Your task to perform on an android device: turn off javascript in the chrome app Image 0: 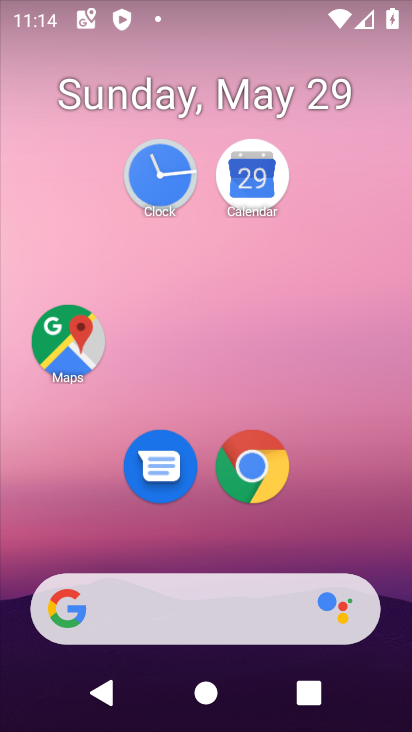
Step 0: click (263, 473)
Your task to perform on an android device: turn off javascript in the chrome app Image 1: 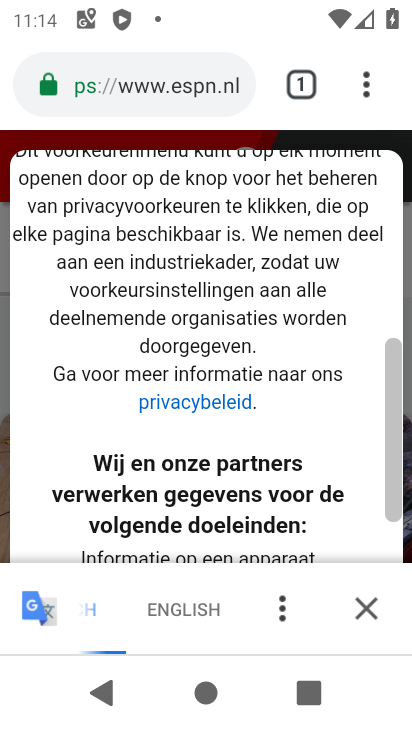
Step 1: click (372, 76)
Your task to perform on an android device: turn off javascript in the chrome app Image 2: 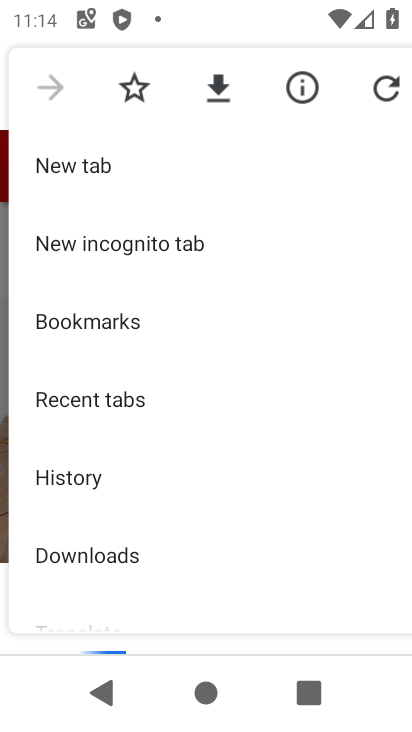
Step 2: drag from (116, 538) to (164, 161)
Your task to perform on an android device: turn off javascript in the chrome app Image 3: 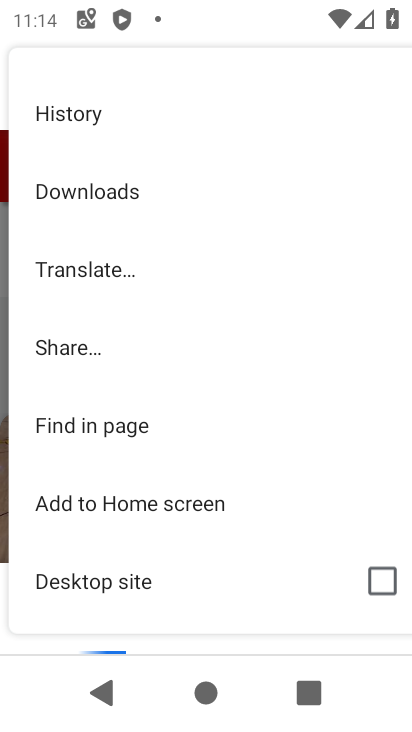
Step 3: drag from (173, 579) to (220, 150)
Your task to perform on an android device: turn off javascript in the chrome app Image 4: 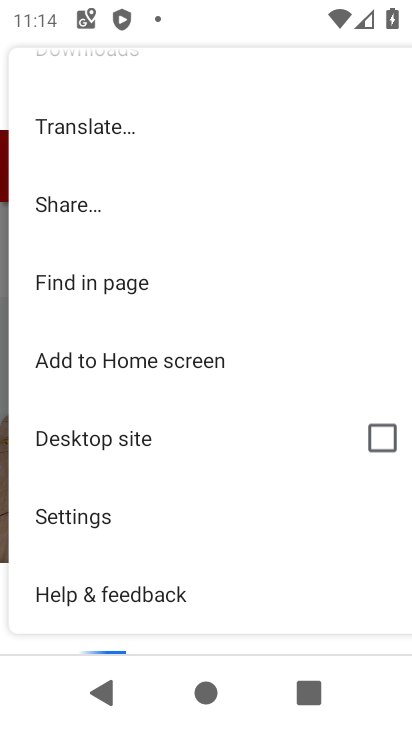
Step 4: click (145, 511)
Your task to perform on an android device: turn off javascript in the chrome app Image 5: 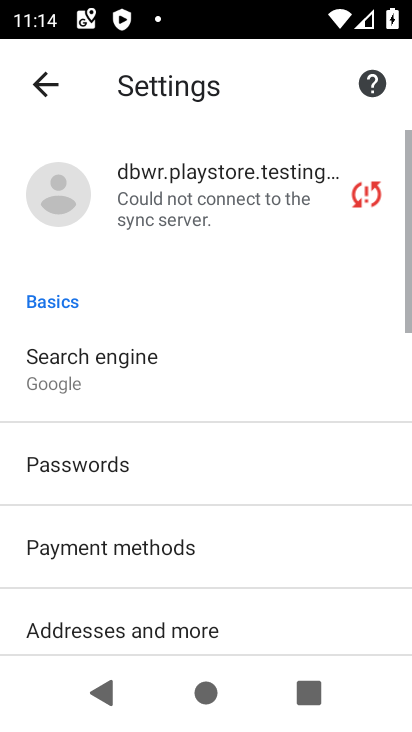
Step 5: drag from (141, 497) to (170, 150)
Your task to perform on an android device: turn off javascript in the chrome app Image 6: 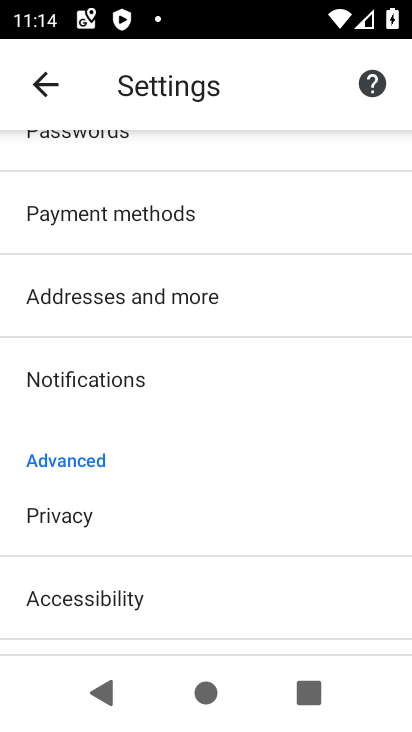
Step 6: drag from (189, 611) to (232, 164)
Your task to perform on an android device: turn off javascript in the chrome app Image 7: 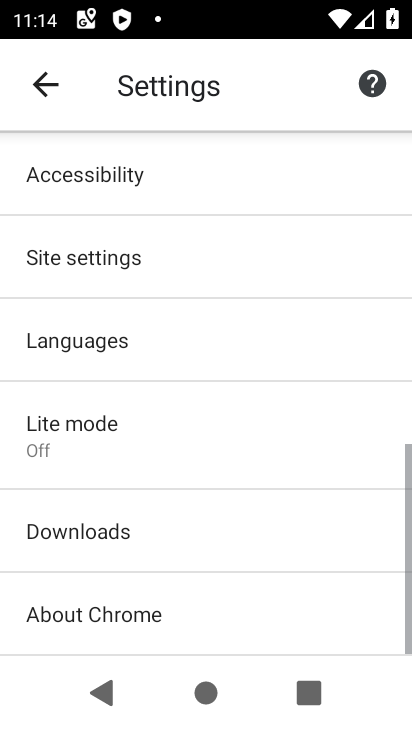
Step 7: drag from (183, 450) to (237, 139)
Your task to perform on an android device: turn off javascript in the chrome app Image 8: 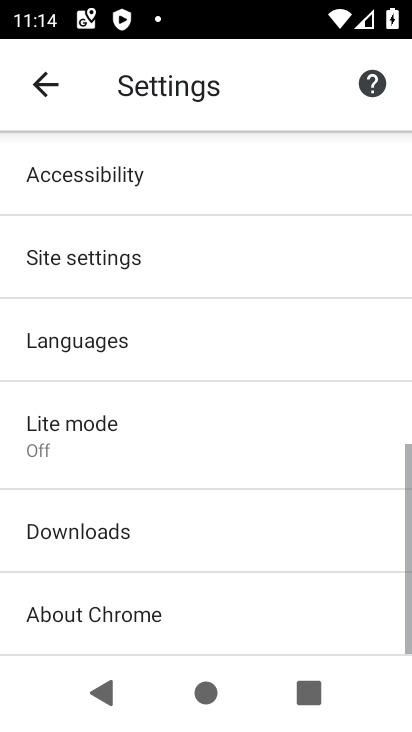
Step 8: click (201, 242)
Your task to perform on an android device: turn off javascript in the chrome app Image 9: 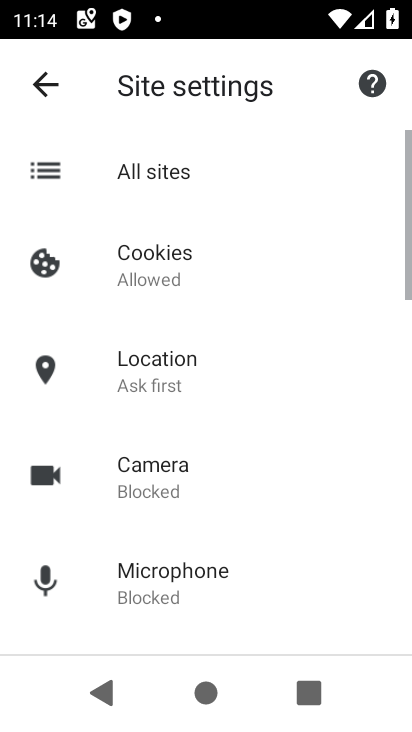
Step 9: drag from (296, 594) to (318, 157)
Your task to perform on an android device: turn off javascript in the chrome app Image 10: 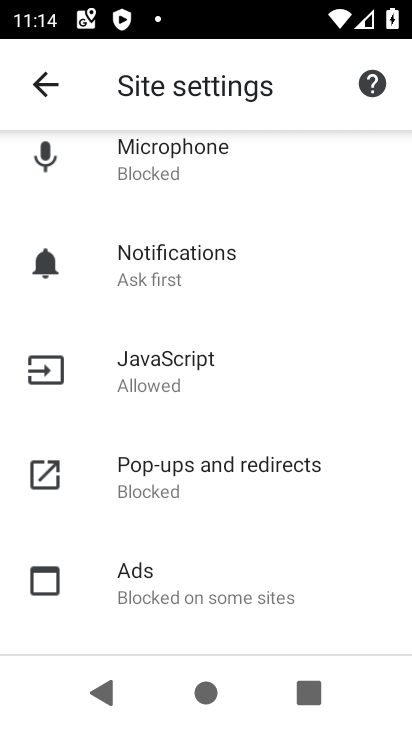
Step 10: click (193, 364)
Your task to perform on an android device: turn off javascript in the chrome app Image 11: 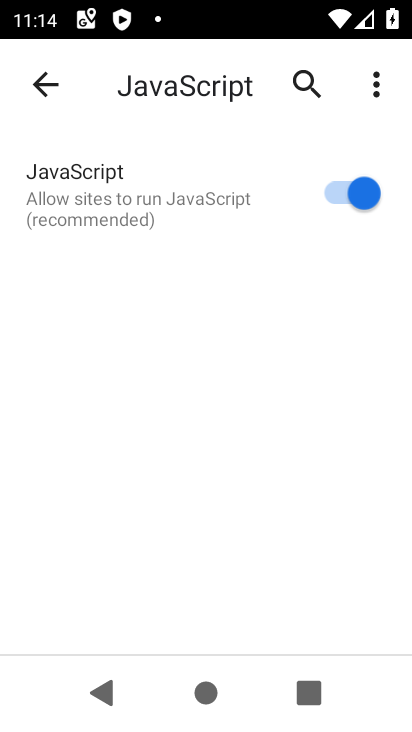
Step 11: click (341, 189)
Your task to perform on an android device: turn off javascript in the chrome app Image 12: 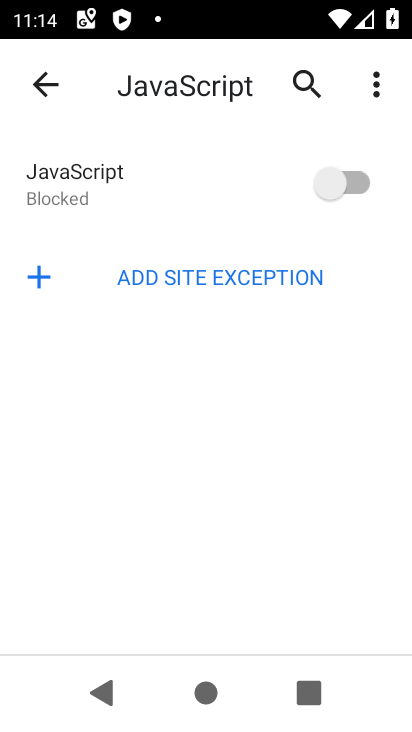
Step 12: task complete